Your task to perform on an android device: Is it going to rain tomorrow? Image 0: 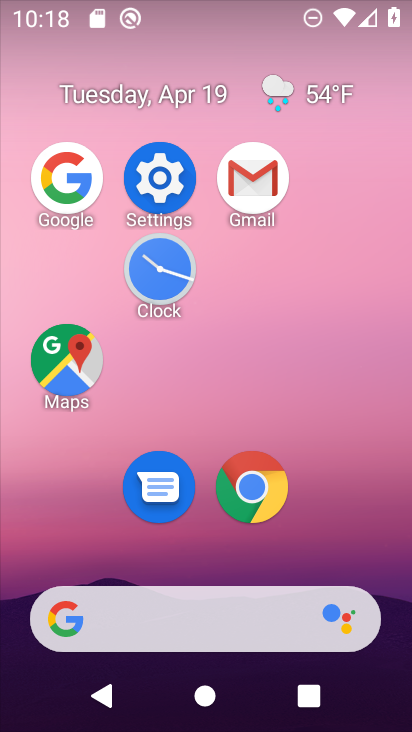
Step 0: click (160, 183)
Your task to perform on an android device: Is it going to rain tomorrow? Image 1: 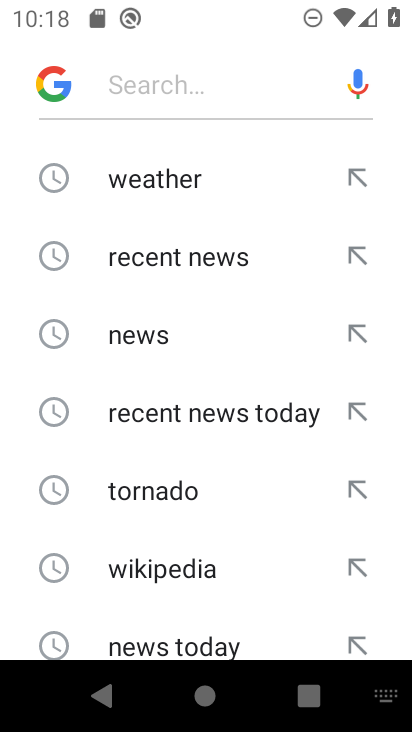
Step 1: press home button
Your task to perform on an android device: Is it going to rain tomorrow? Image 2: 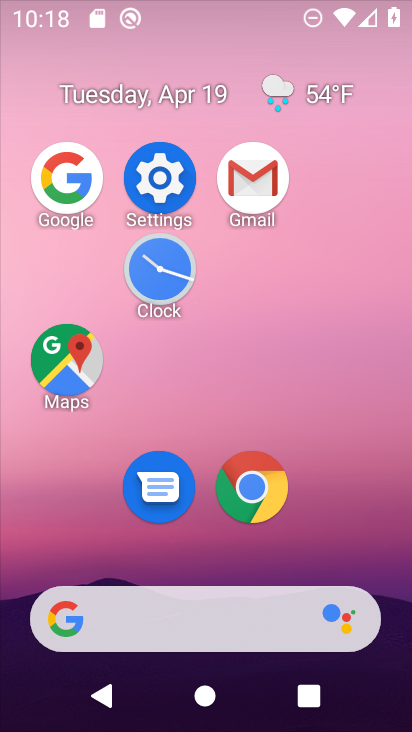
Step 2: click (158, 169)
Your task to perform on an android device: Is it going to rain tomorrow? Image 3: 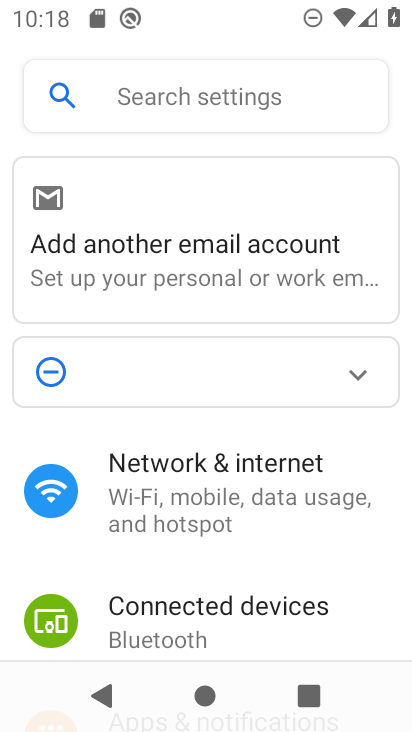
Step 3: drag from (241, 529) to (280, 160)
Your task to perform on an android device: Is it going to rain tomorrow? Image 4: 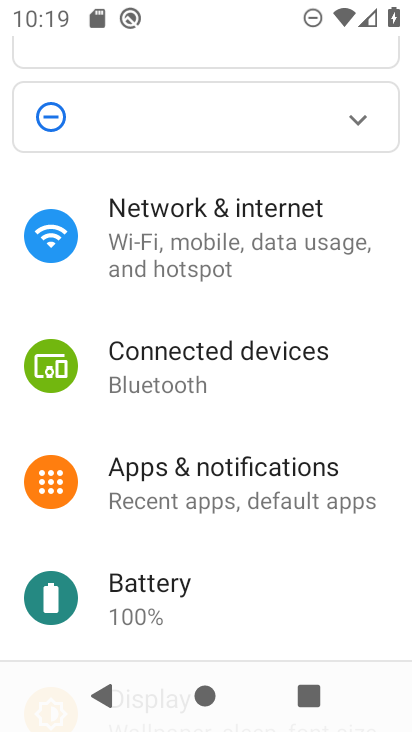
Step 4: click (290, 243)
Your task to perform on an android device: Is it going to rain tomorrow? Image 5: 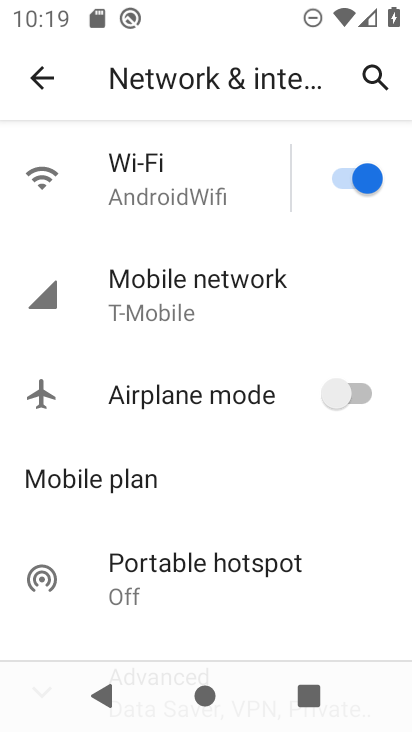
Step 5: press home button
Your task to perform on an android device: Is it going to rain tomorrow? Image 6: 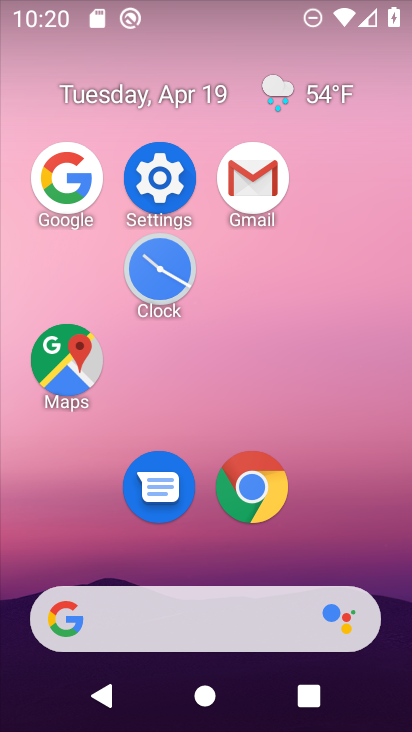
Step 6: drag from (208, 461) to (256, 34)
Your task to perform on an android device: Is it going to rain tomorrow? Image 7: 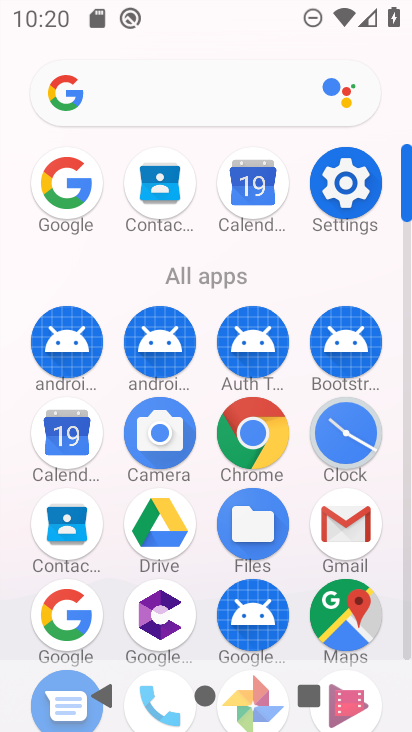
Step 7: drag from (177, 626) to (229, 320)
Your task to perform on an android device: Is it going to rain tomorrow? Image 8: 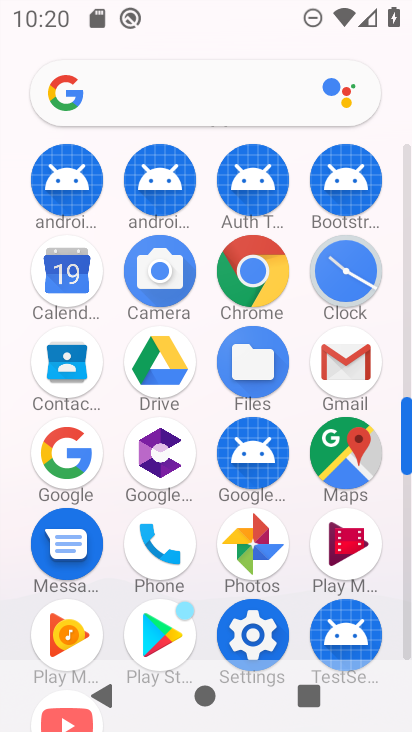
Step 8: click (75, 471)
Your task to perform on an android device: Is it going to rain tomorrow? Image 9: 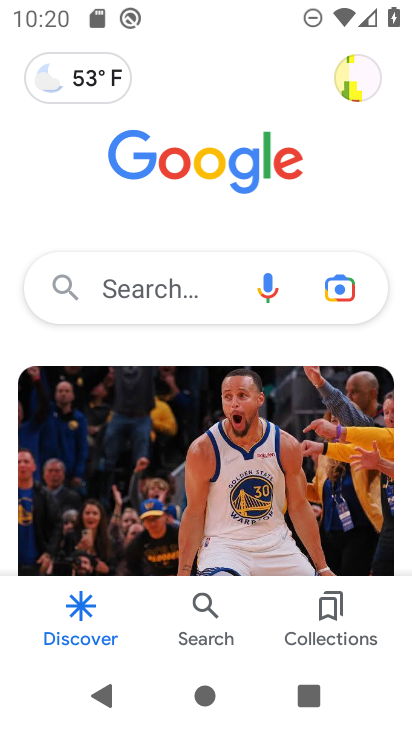
Step 9: click (81, 70)
Your task to perform on an android device: Is it going to rain tomorrow? Image 10: 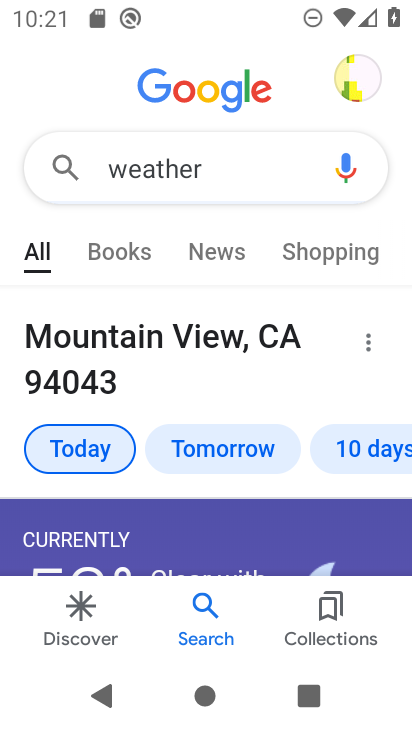
Step 10: click (216, 448)
Your task to perform on an android device: Is it going to rain tomorrow? Image 11: 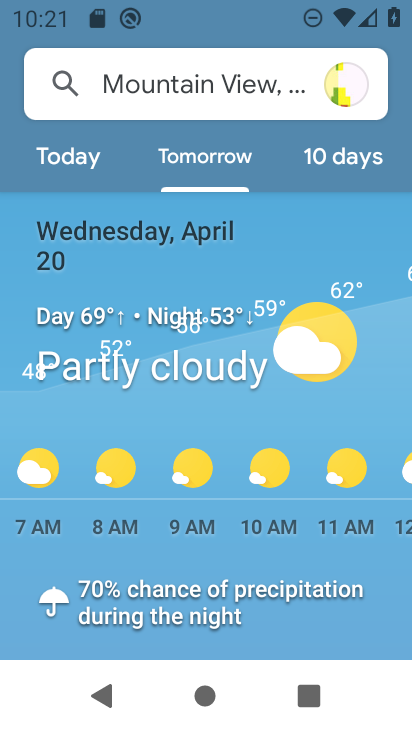
Step 11: task complete